Your task to perform on an android device: Open settings on Google Maps Image 0: 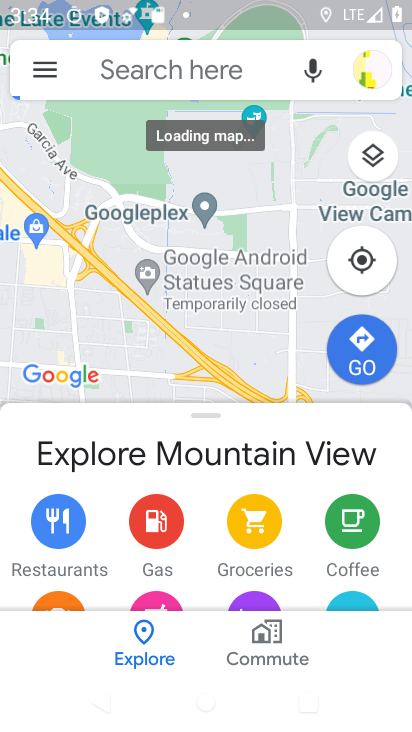
Step 0: click (39, 63)
Your task to perform on an android device: Open settings on Google Maps Image 1: 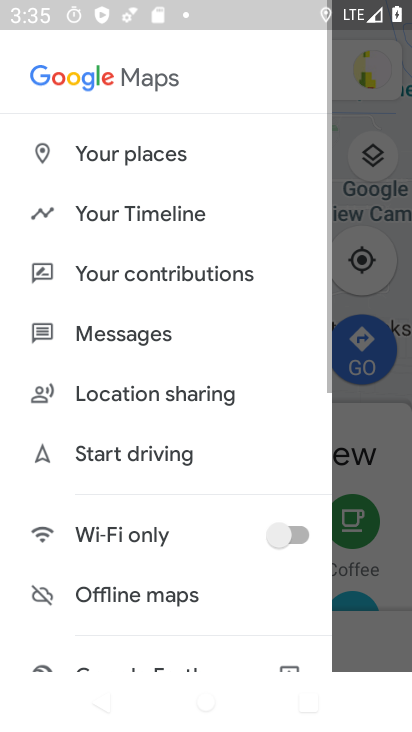
Step 1: drag from (127, 599) to (182, 143)
Your task to perform on an android device: Open settings on Google Maps Image 2: 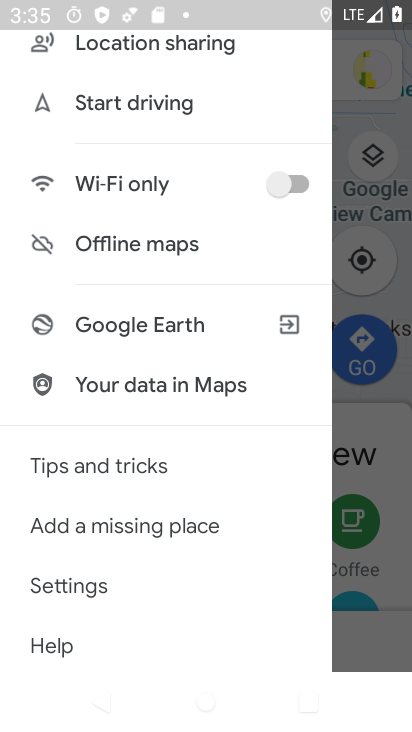
Step 2: click (104, 572)
Your task to perform on an android device: Open settings on Google Maps Image 3: 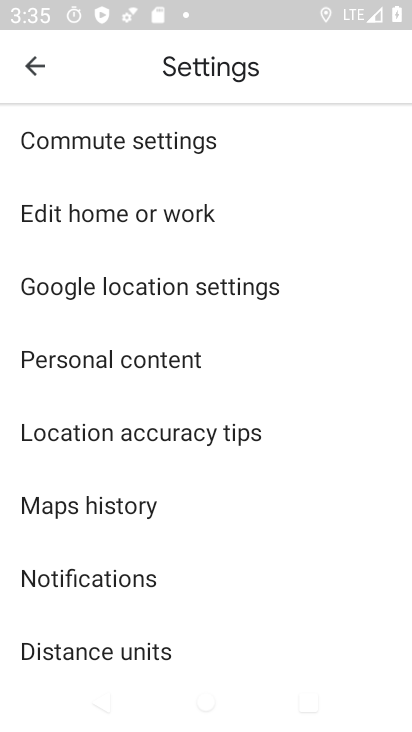
Step 3: task complete